Your task to perform on an android device: open app "DoorDash - Dasher" (install if not already installed) Image 0: 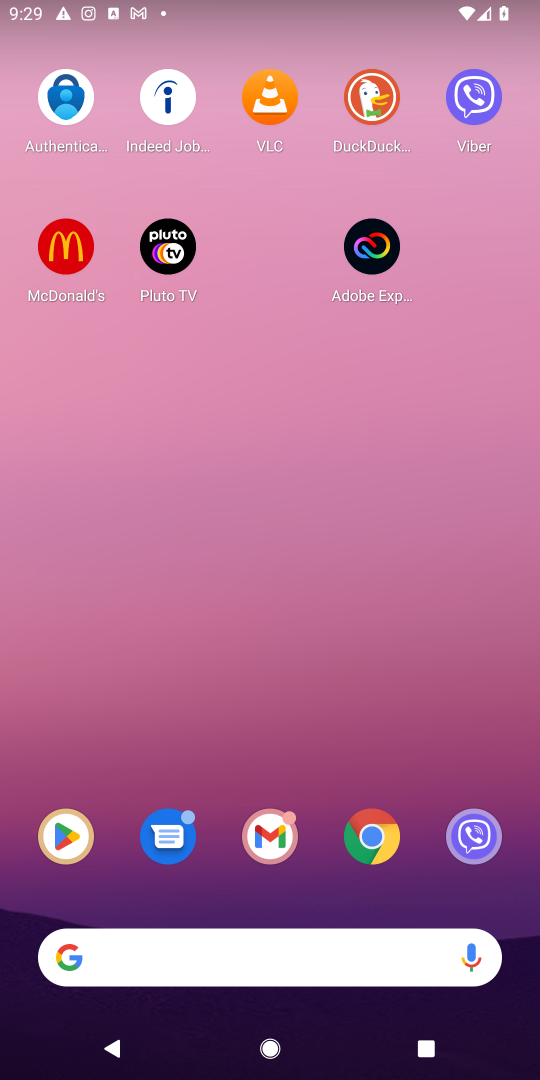
Step 0: press home button
Your task to perform on an android device: open app "DoorDash - Dasher" (install if not already installed) Image 1: 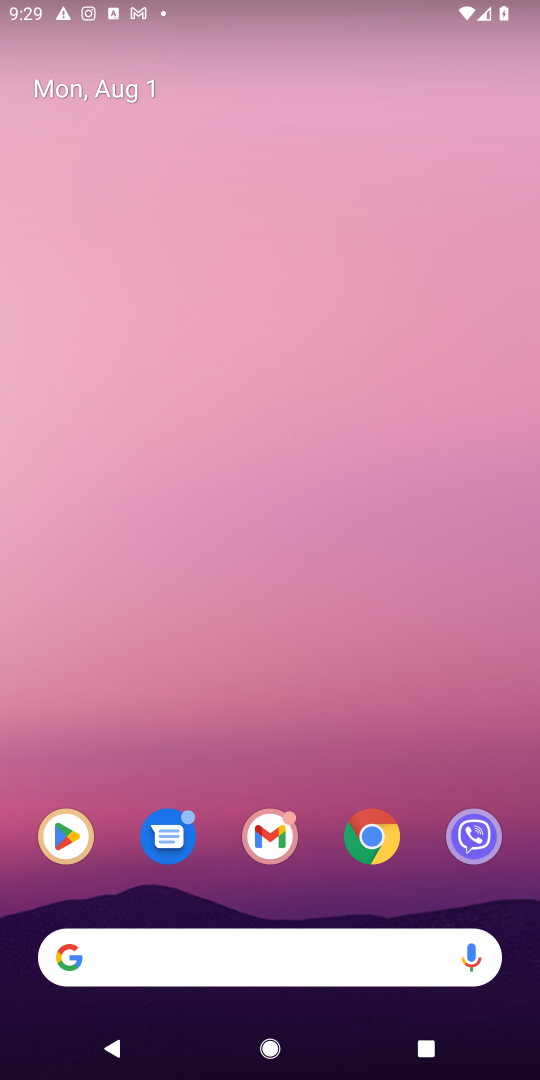
Step 1: click (63, 840)
Your task to perform on an android device: open app "DoorDash - Dasher" (install if not already installed) Image 2: 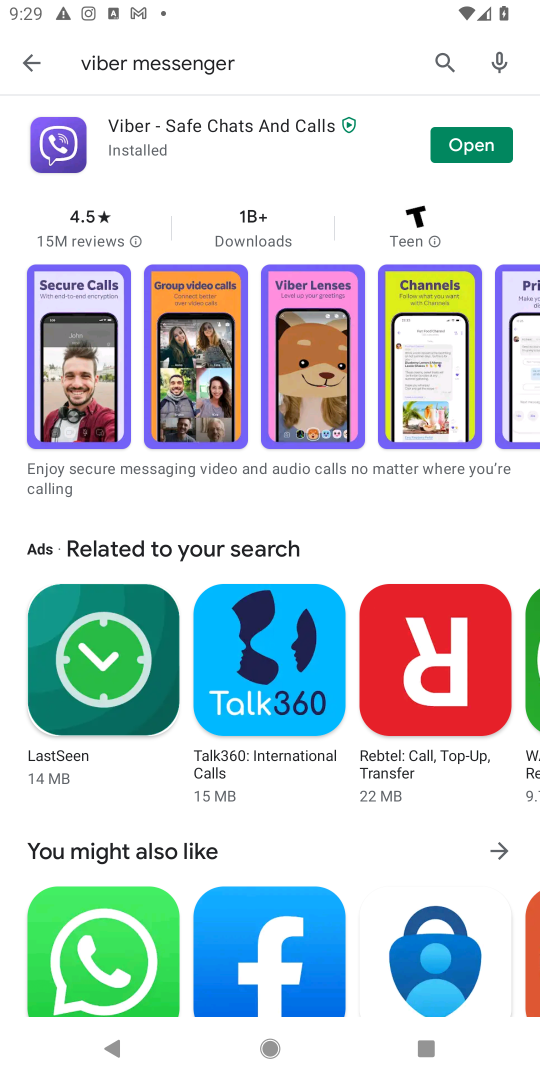
Step 2: click (427, 53)
Your task to perform on an android device: open app "DoorDash - Dasher" (install if not already installed) Image 3: 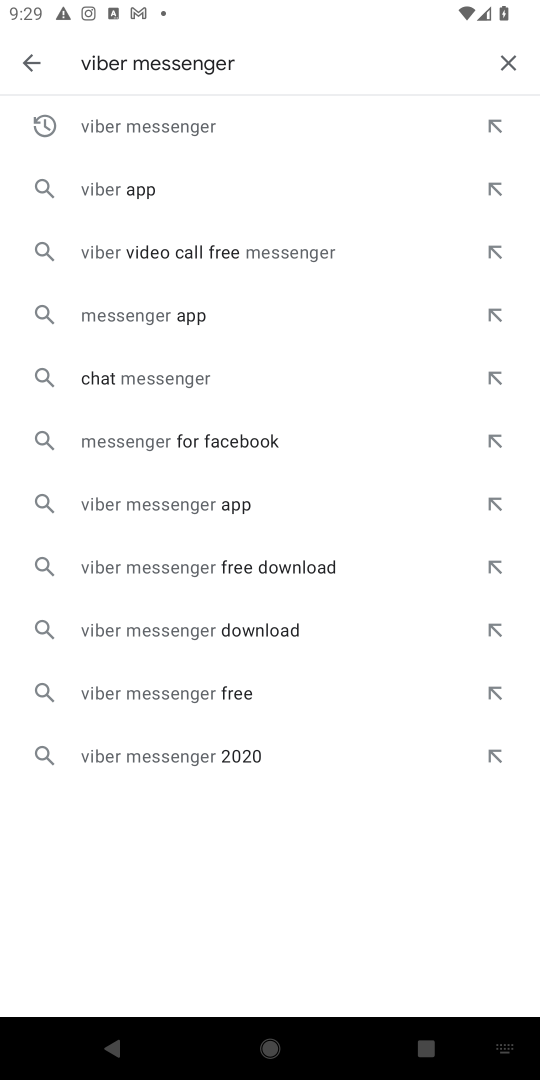
Step 3: click (513, 51)
Your task to perform on an android device: open app "DoorDash - Dasher" (install if not already installed) Image 4: 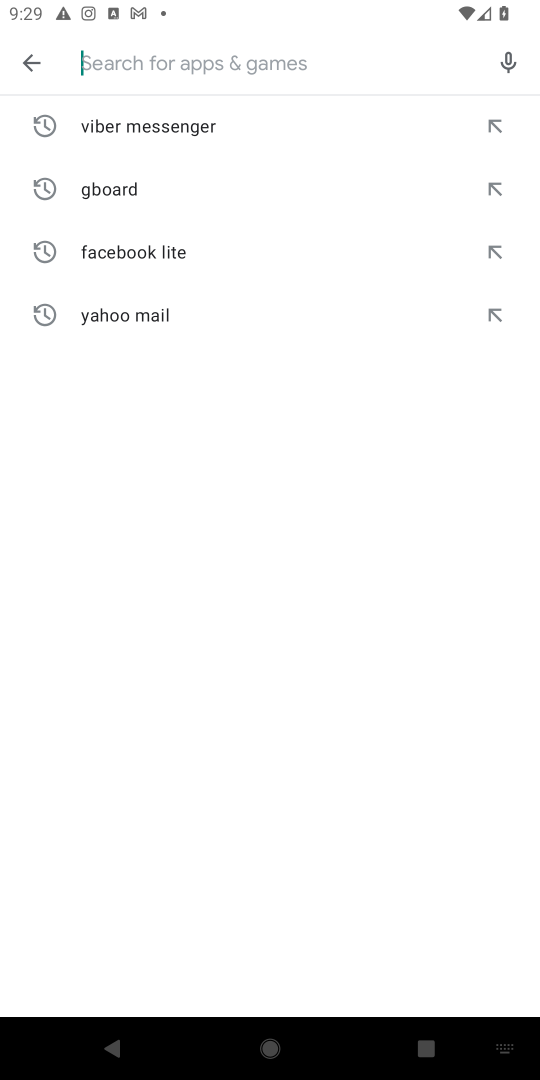
Step 4: type "DoorDash - Dasher"
Your task to perform on an android device: open app "DoorDash - Dasher" (install if not already installed) Image 5: 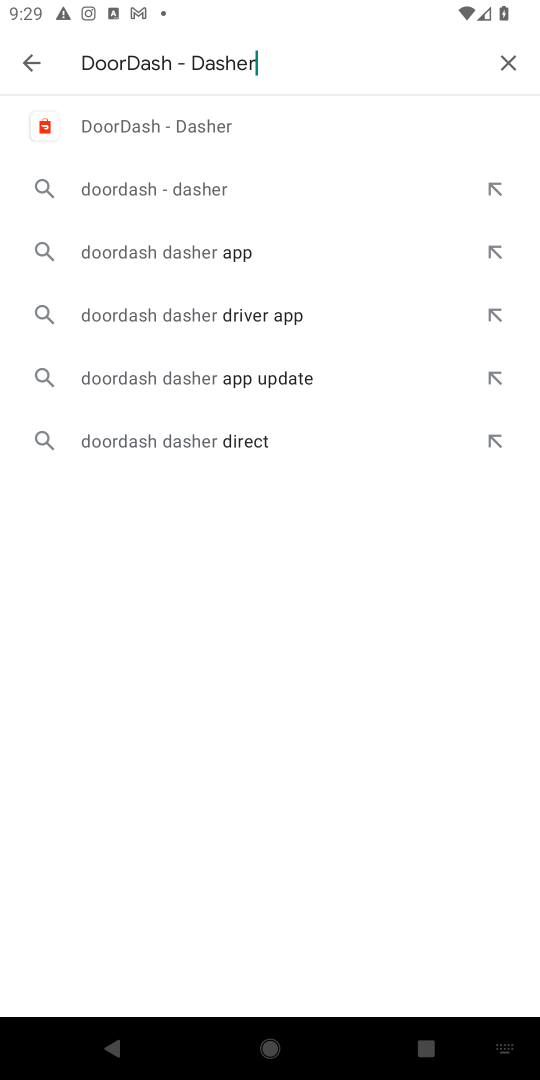
Step 5: click (173, 116)
Your task to perform on an android device: open app "DoorDash - Dasher" (install if not already installed) Image 6: 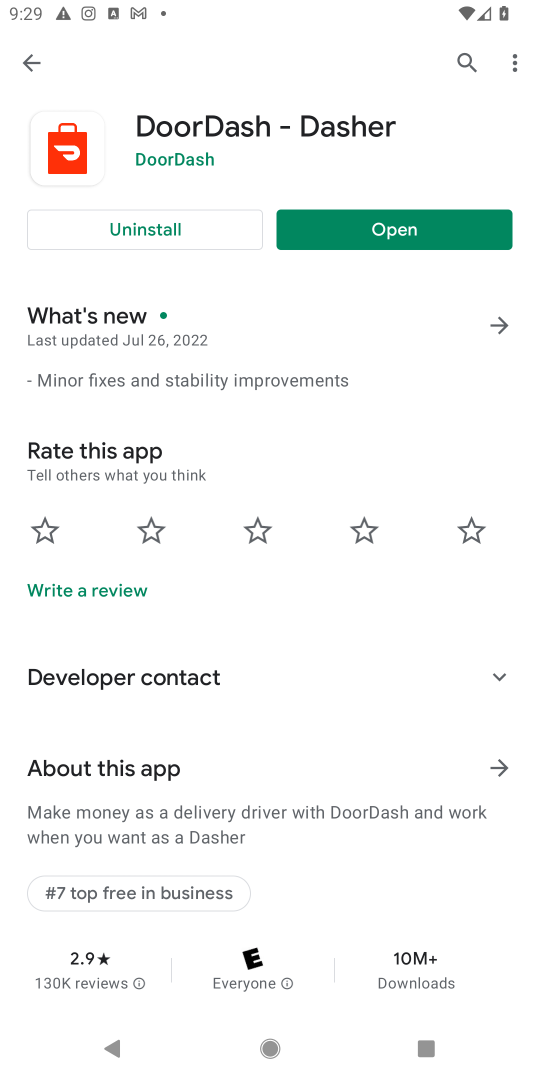
Step 6: click (386, 228)
Your task to perform on an android device: open app "DoorDash - Dasher" (install if not already installed) Image 7: 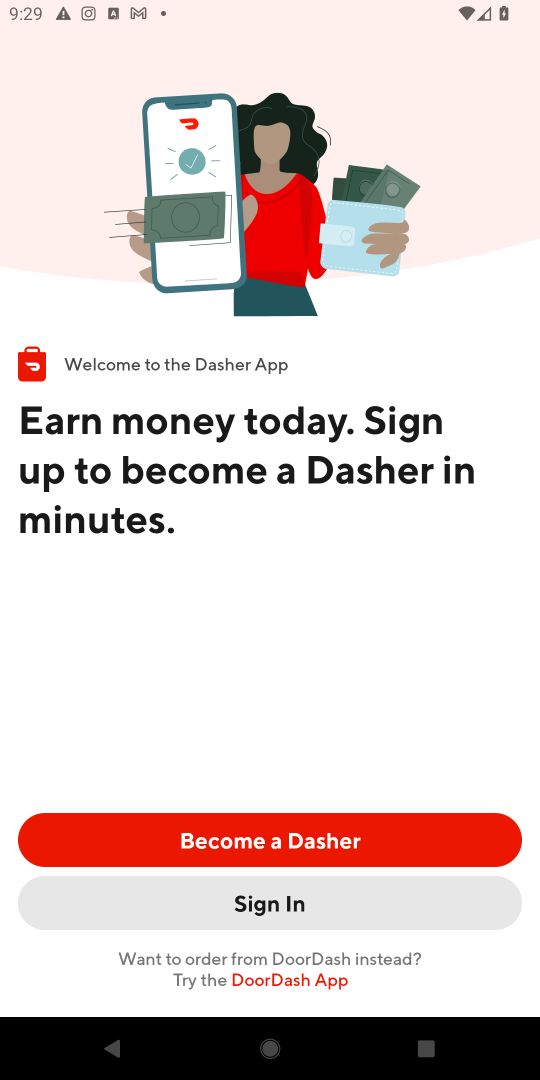
Step 7: task complete